Your task to perform on an android device: clear history in the chrome app Image 0: 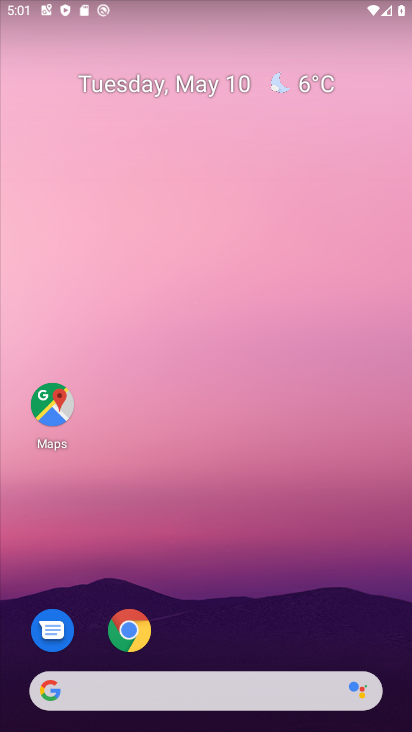
Step 0: click (130, 628)
Your task to perform on an android device: clear history in the chrome app Image 1: 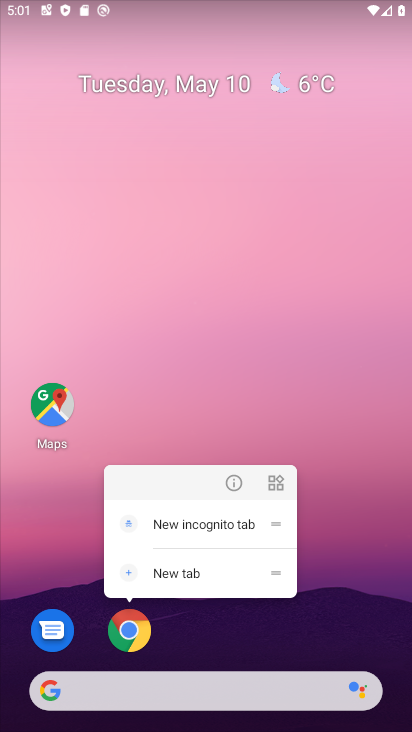
Step 1: click (135, 638)
Your task to perform on an android device: clear history in the chrome app Image 2: 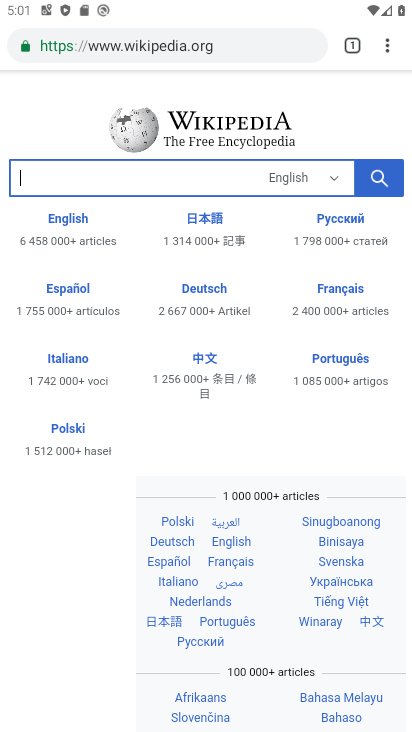
Step 2: drag from (392, 43) to (246, 252)
Your task to perform on an android device: clear history in the chrome app Image 3: 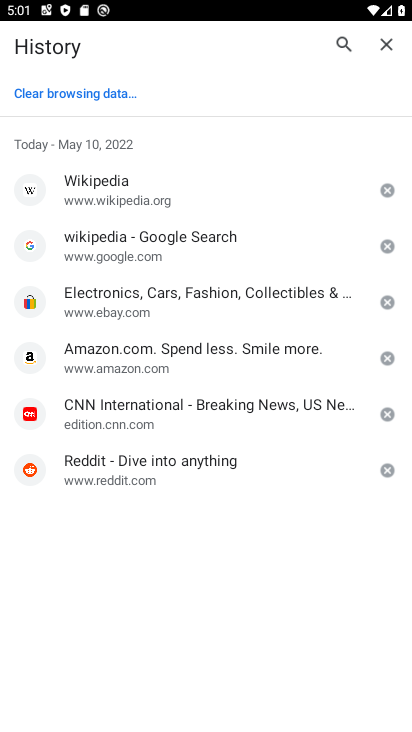
Step 3: click (119, 89)
Your task to perform on an android device: clear history in the chrome app Image 4: 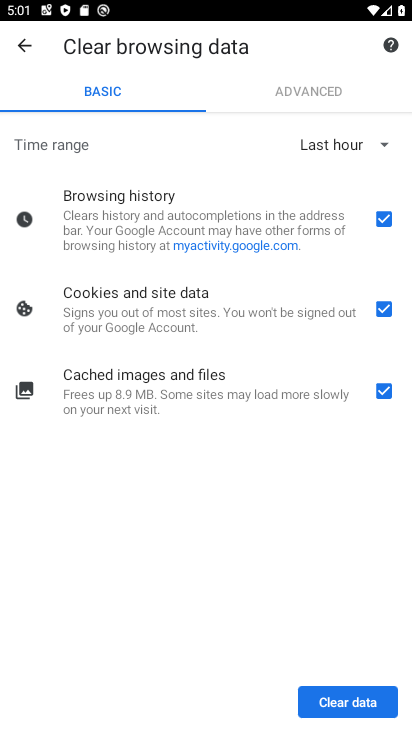
Step 4: click (355, 149)
Your task to perform on an android device: clear history in the chrome app Image 5: 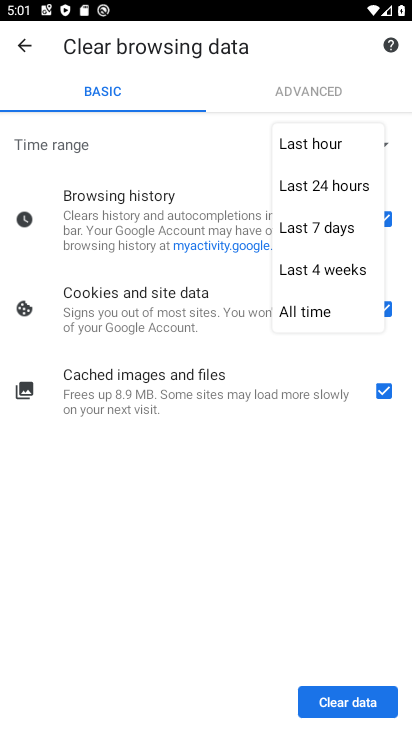
Step 5: click (310, 305)
Your task to perform on an android device: clear history in the chrome app Image 6: 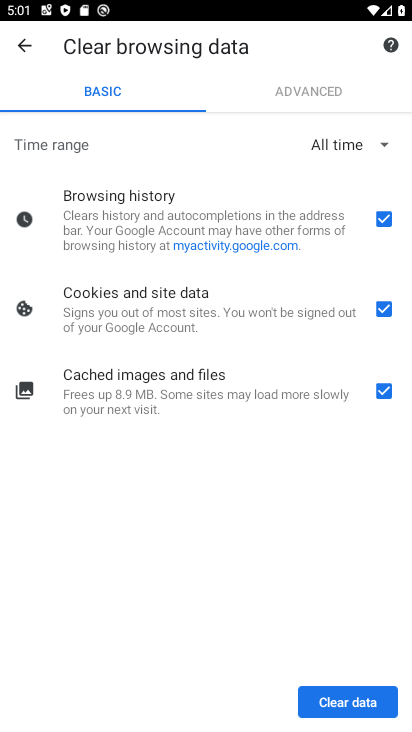
Step 6: click (356, 700)
Your task to perform on an android device: clear history in the chrome app Image 7: 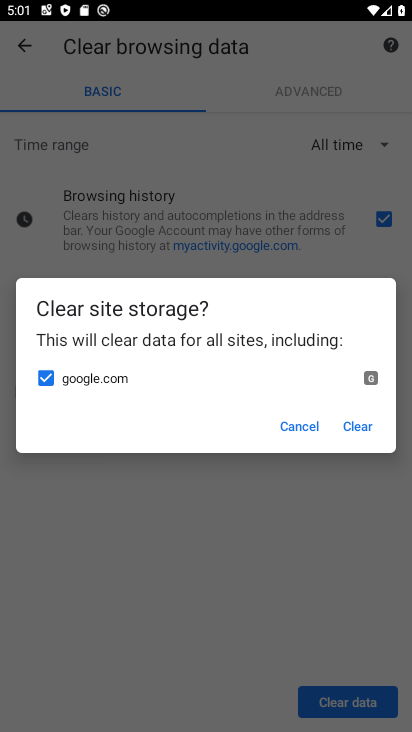
Step 7: click (366, 424)
Your task to perform on an android device: clear history in the chrome app Image 8: 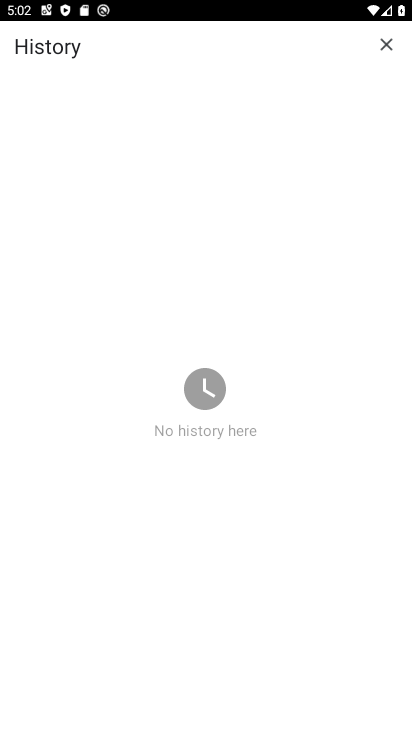
Step 8: task complete